Your task to perform on an android device: Show me recent news Image 0: 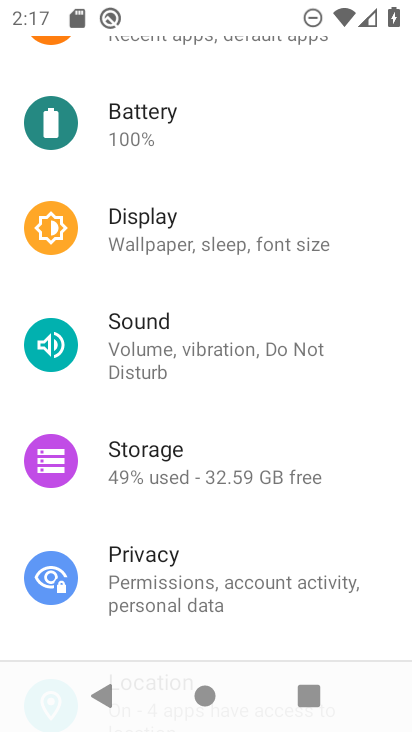
Step 0: press home button
Your task to perform on an android device: Show me recent news Image 1: 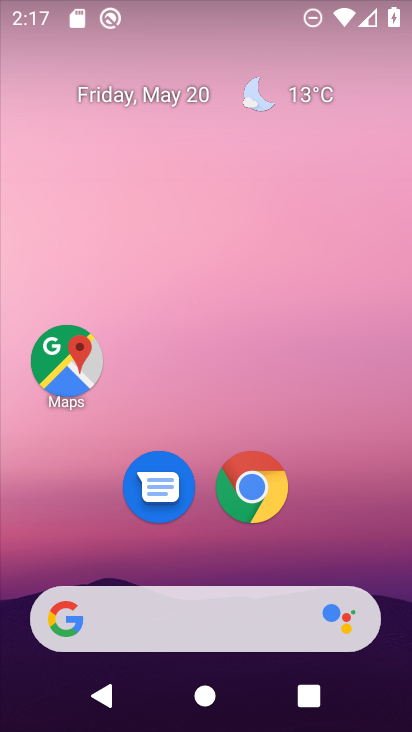
Step 1: task complete